Your task to perform on an android device: turn notification dots off Image 0: 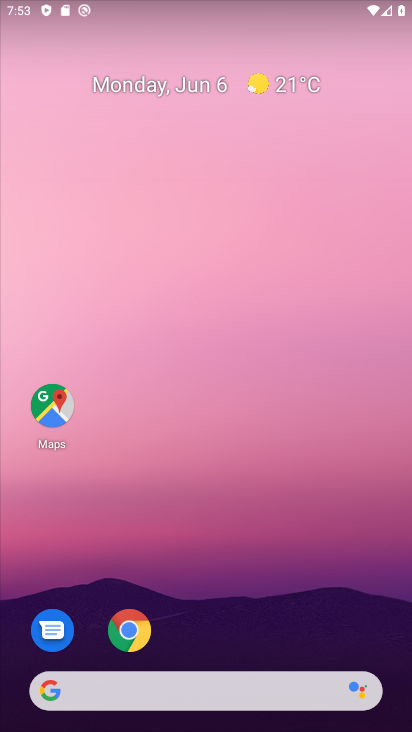
Step 0: drag from (200, 630) to (219, 166)
Your task to perform on an android device: turn notification dots off Image 1: 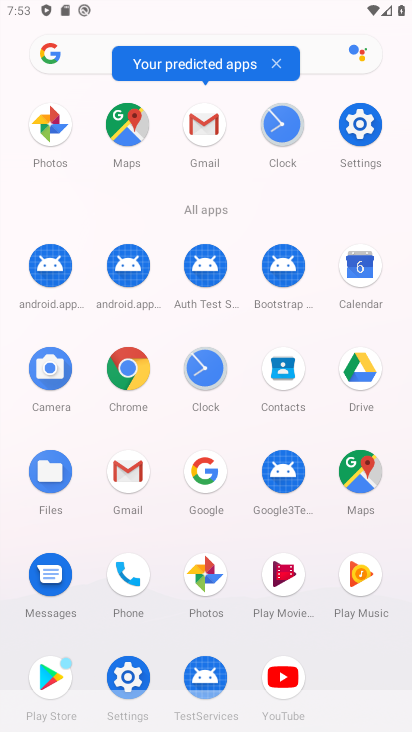
Step 1: click (354, 126)
Your task to perform on an android device: turn notification dots off Image 2: 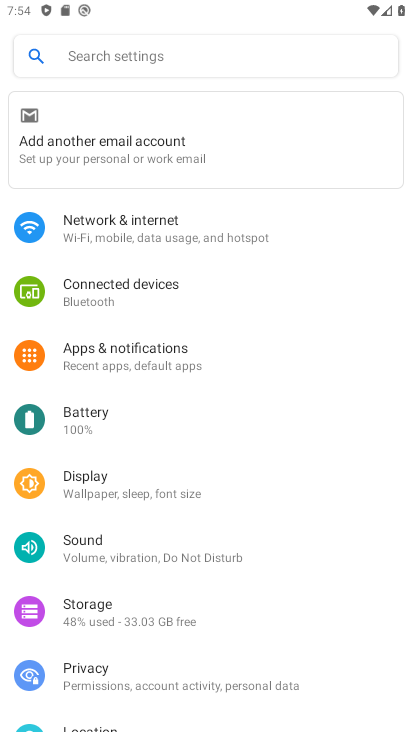
Step 2: click (202, 360)
Your task to perform on an android device: turn notification dots off Image 3: 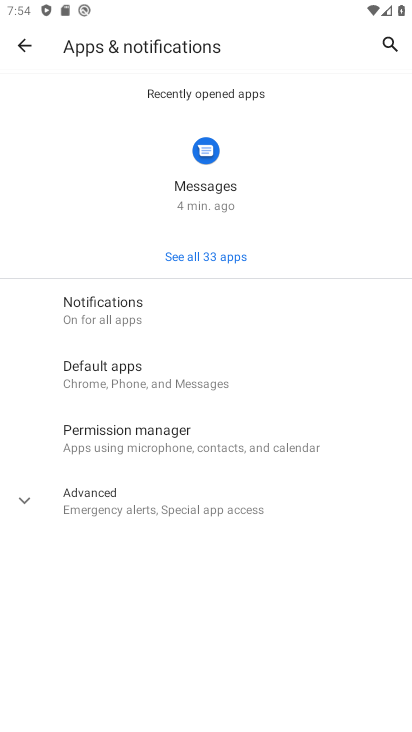
Step 3: click (169, 515)
Your task to perform on an android device: turn notification dots off Image 4: 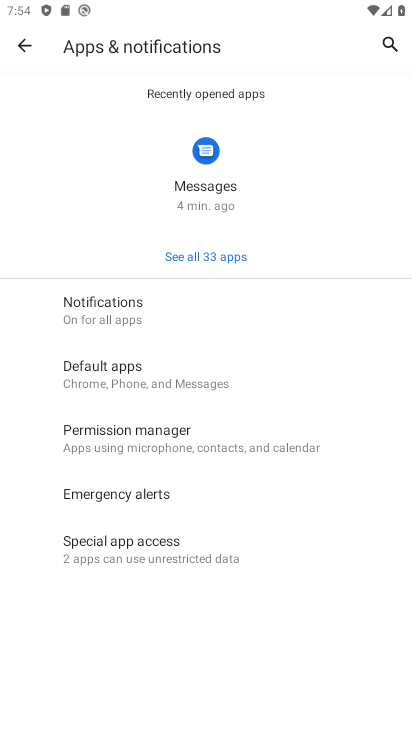
Step 4: click (142, 297)
Your task to perform on an android device: turn notification dots off Image 5: 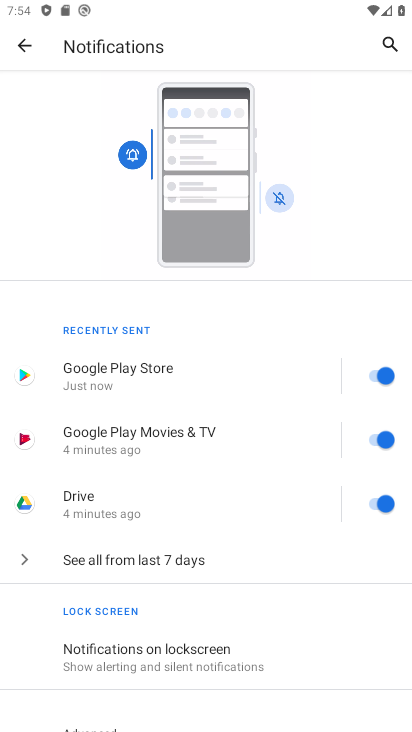
Step 5: drag from (248, 598) to (267, 302)
Your task to perform on an android device: turn notification dots off Image 6: 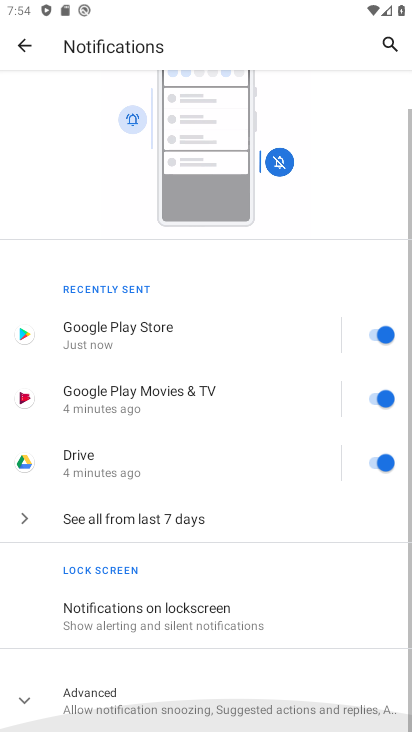
Step 6: drag from (223, 581) to (235, 248)
Your task to perform on an android device: turn notification dots off Image 7: 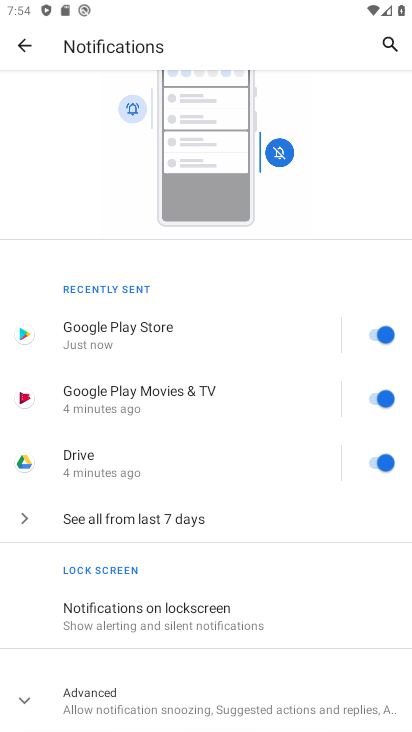
Step 7: click (141, 688)
Your task to perform on an android device: turn notification dots off Image 8: 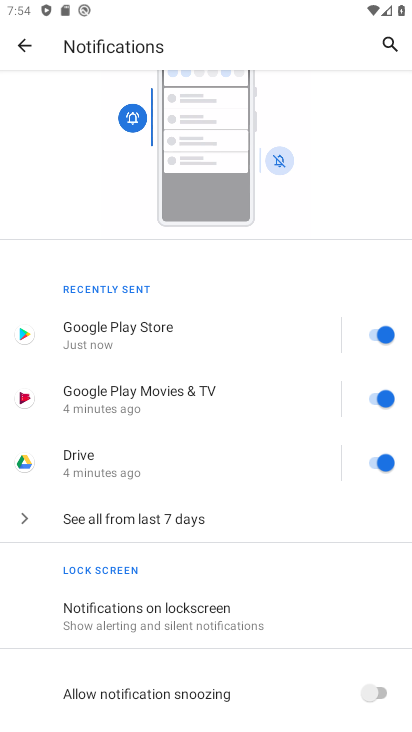
Step 8: drag from (197, 663) to (240, 293)
Your task to perform on an android device: turn notification dots off Image 9: 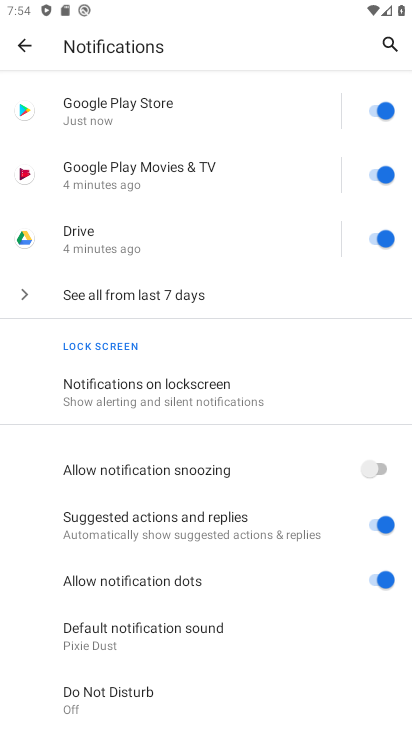
Step 9: drag from (230, 664) to (237, 392)
Your task to perform on an android device: turn notification dots off Image 10: 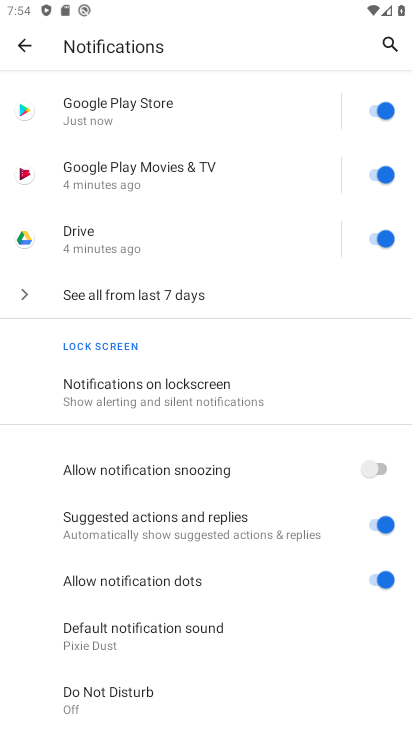
Step 10: click (372, 576)
Your task to perform on an android device: turn notification dots off Image 11: 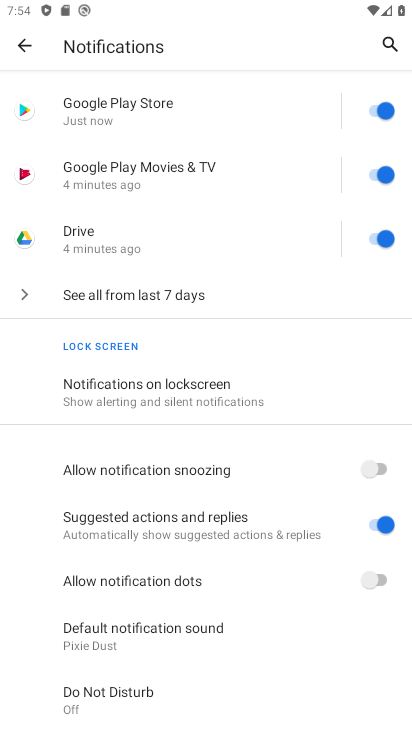
Step 11: task complete